Your task to perform on an android device: Go to Amazon Image 0: 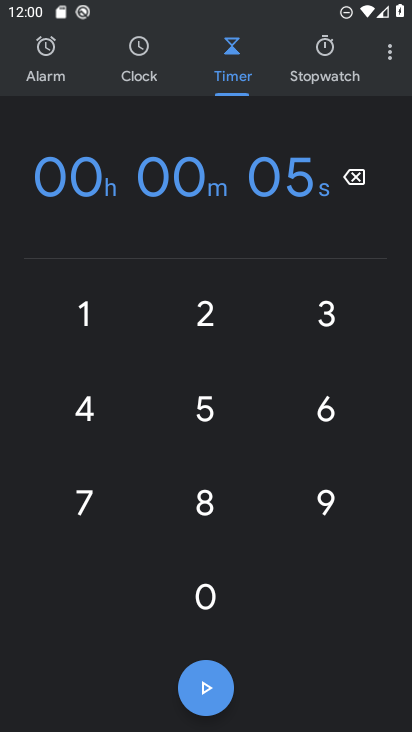
Step 0: press home button
Your task to perform on an android device: Go to Amazon Image 1: 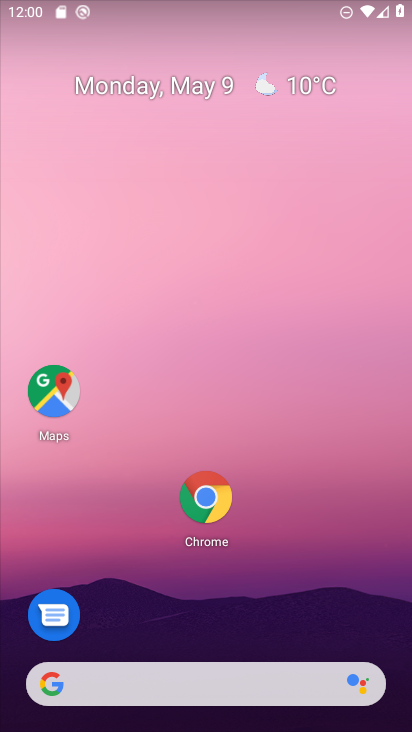
Step 1: click (213, 504)
Your task to perform on an android device: Go to Amazon Image 2: 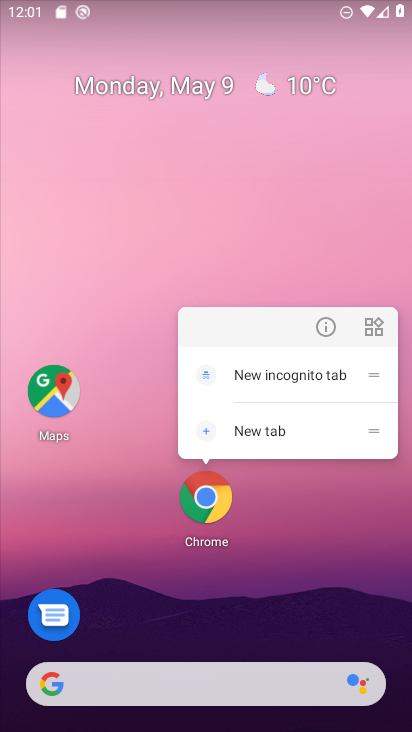
Step 2: click (198, 511)
Your task to perform on an android device: Go to Amazon Image 3: 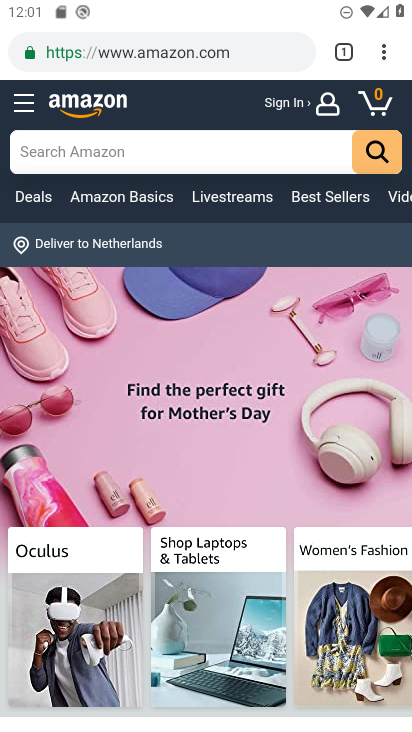
Step 3: task complete